Your task to perform on an android device: check google app version Image 0: 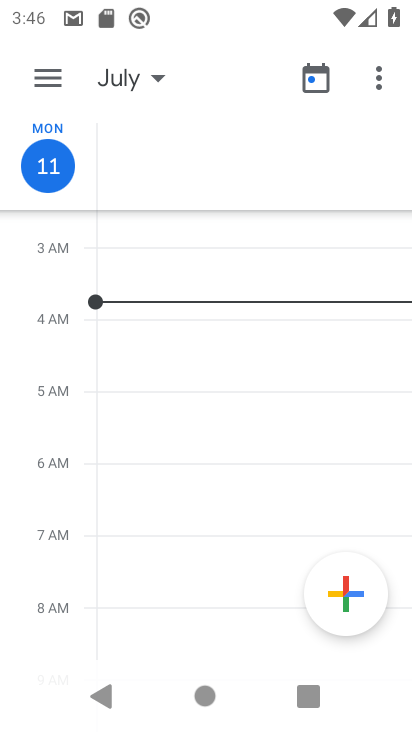
Step 0: press home button
Your task to perform on an android device: check google app version Image 1: 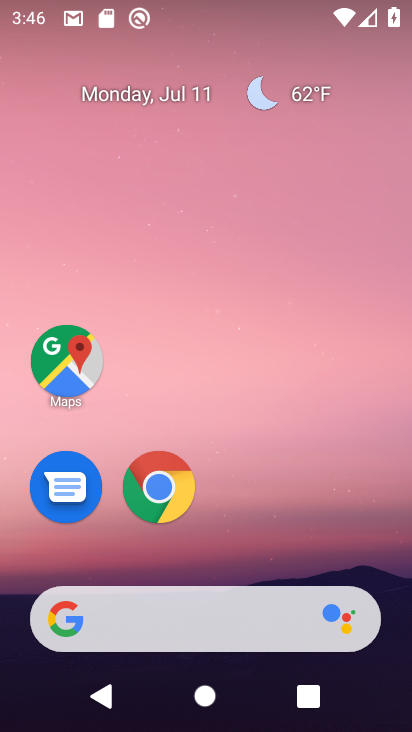
Step 1: drag from (157, 630) to (352, 15)
Your task to perform on an android device: check google app version Image 2: 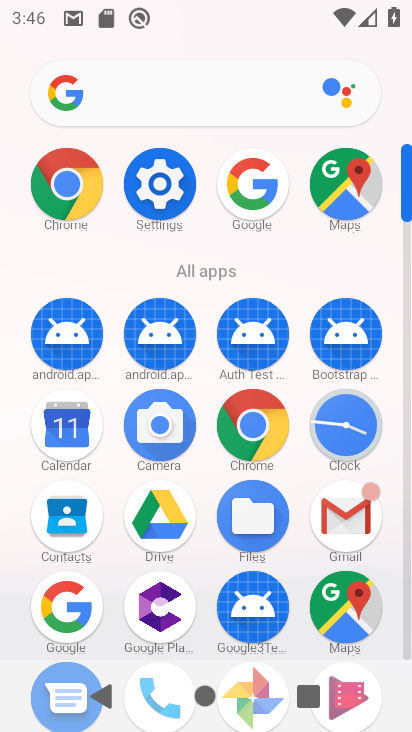
Step 2: drag from (254, 180) to (247, 331)
Your task to perform on an android device: check google app version Image 3: 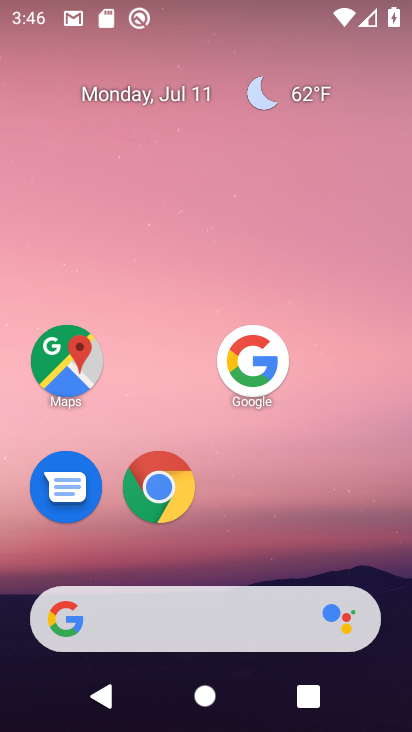
Step 3: drag from (256, 357) to (265, 322)
Your task to perform on an android device: check google app version Image 4: 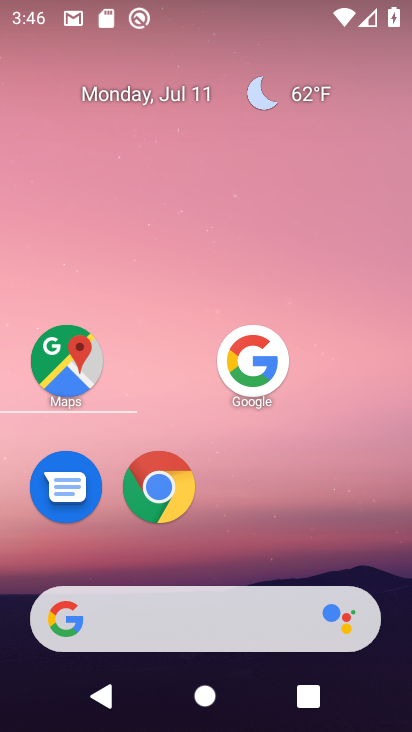
Step 4: click (268, 110)
Your task to perform on an android device: check google app version Image 5: 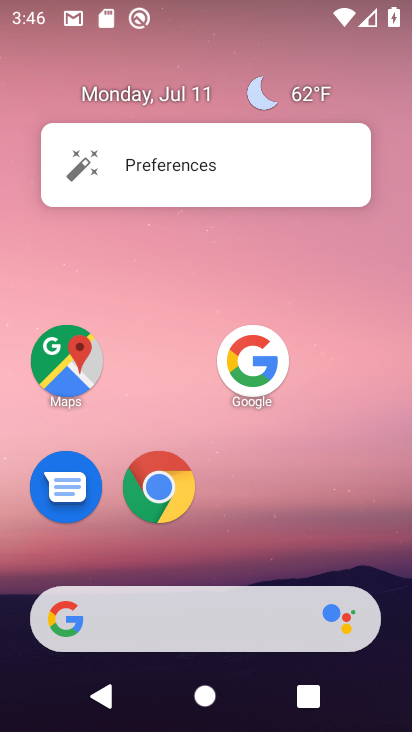
Step 5: click (256, 373)
Your task to perform on an android device: check google app version Image 6: 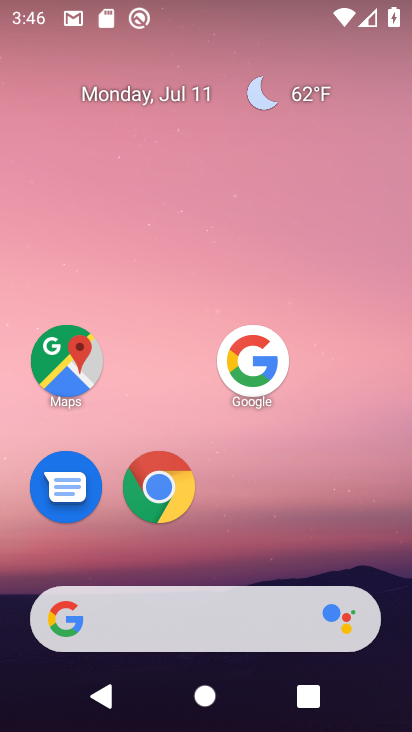
Step 6: click (257, 344)
Your task to perform on an android device: check google app version Image 7: 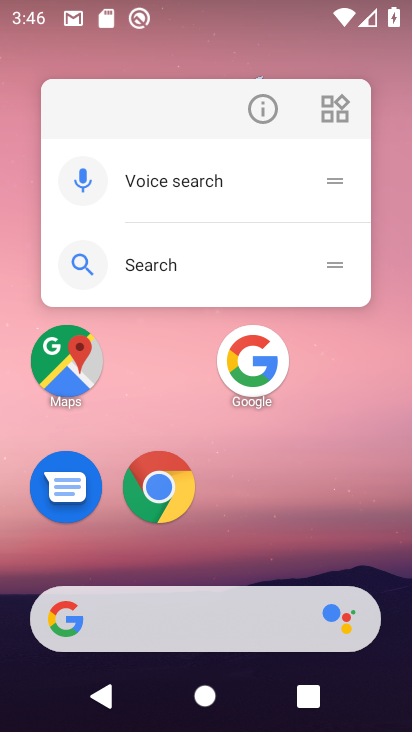
Step 7: click (268, 112)
Your task to perform on an android device: check google app version Image 8: 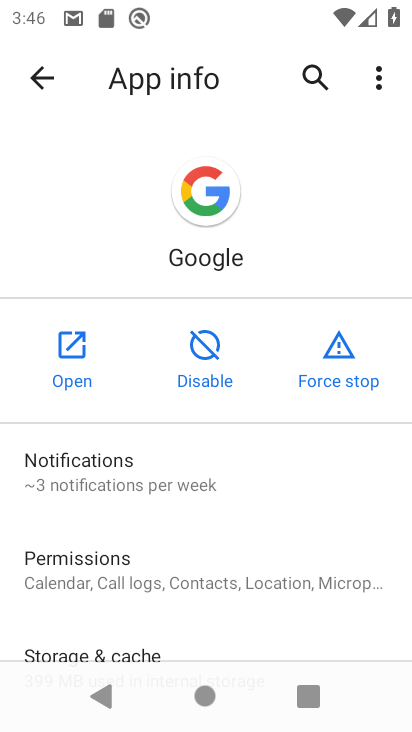
Step 8: drag from (203, 613) to (406, 7)
Your task to perform on an android device: check google app version Image 9: 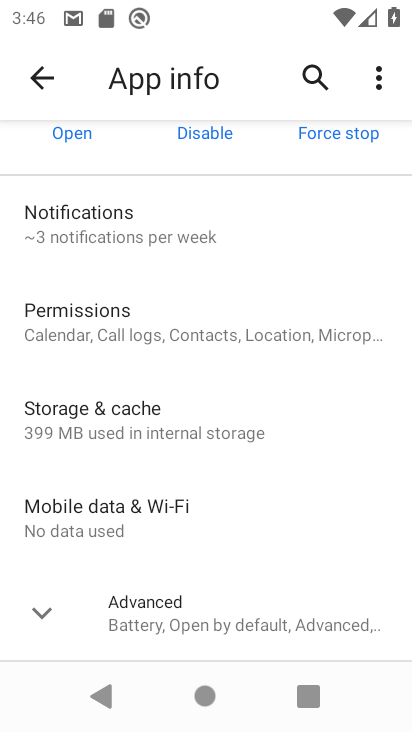
Step 9: click (120, 628)
Your task to perform on an android device: check google app version Image 10: 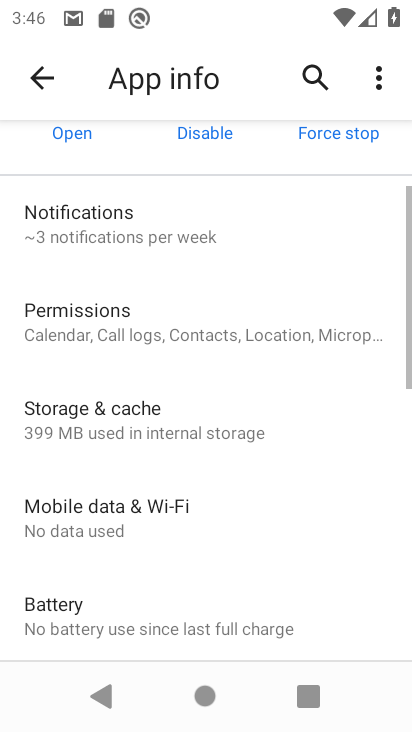
Step 10: drag from (130, 619) to (291, 79)
Your task to perform on an android device: check google app version Image 11: 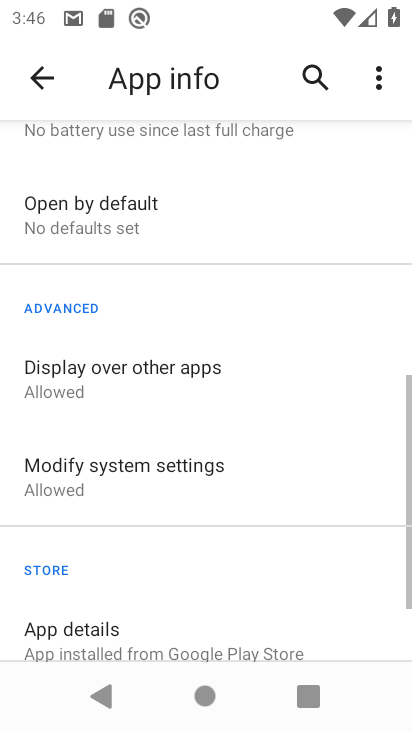
Step 11: click (301, 103)
Your task to perform on an android device: check google app version Image 12: 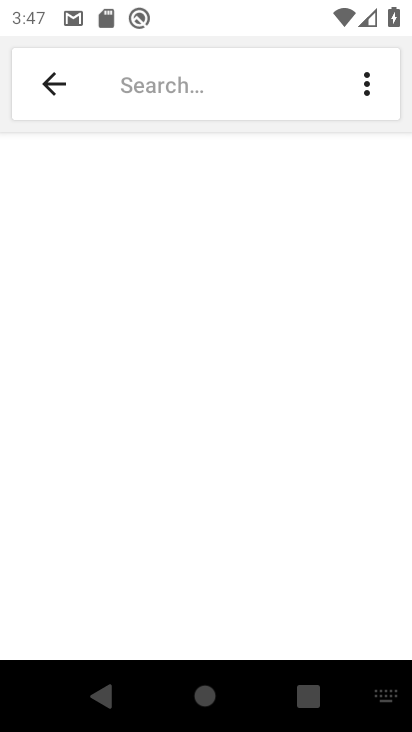
Step 12: click (49, 83)
Your task to perform on an android device: check google app version Image 13: 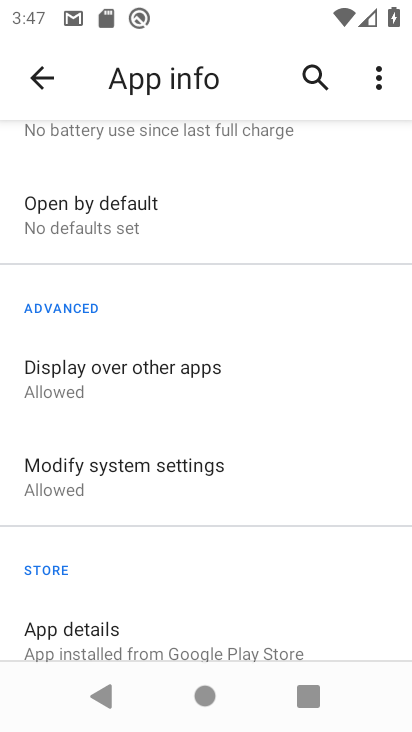
Step 13: task complete